Your task to perform on an android device: Open the calendar and show me this week's events? Image 0: 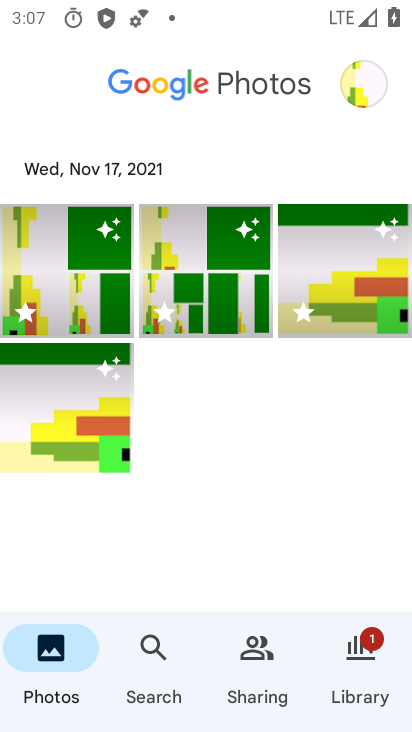
Step 0: press home button
Your task to perform on an android device: Open the calendar and show me this week's events? Image 1: 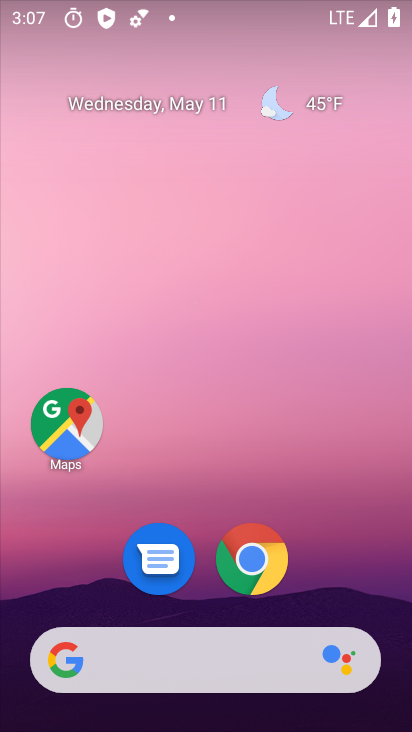
Step 1: click (165, 105)
Your task to perform on an android device: Open the calendar and show me this week's events? Image 2: 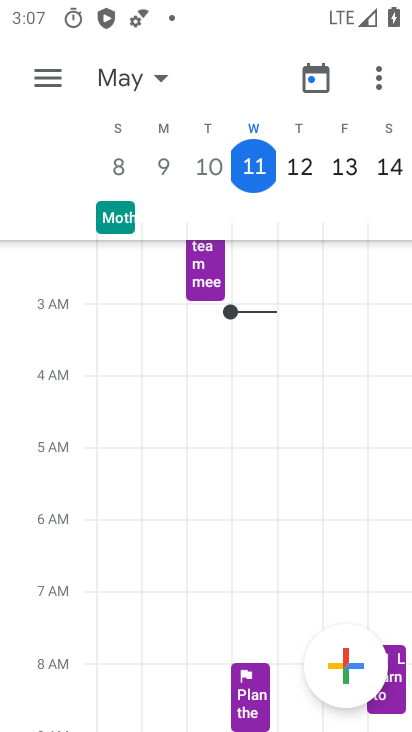
Step 2: task complete